Your task to perform on an android device: change alarm snooze length Image 0: 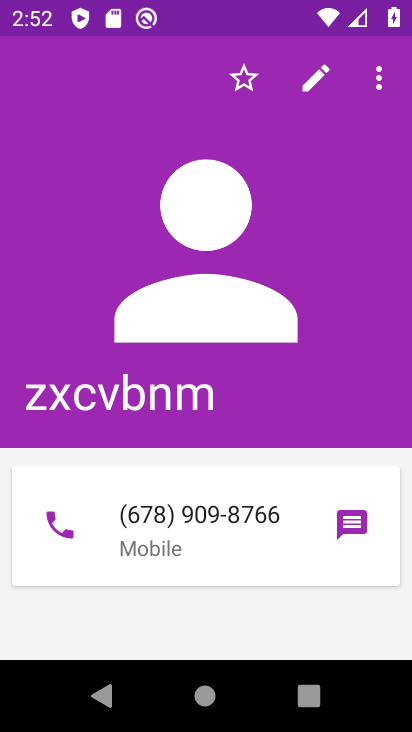
Step 0: press home button
Your task to perform on an android device: change alarm snooze length Image 1: 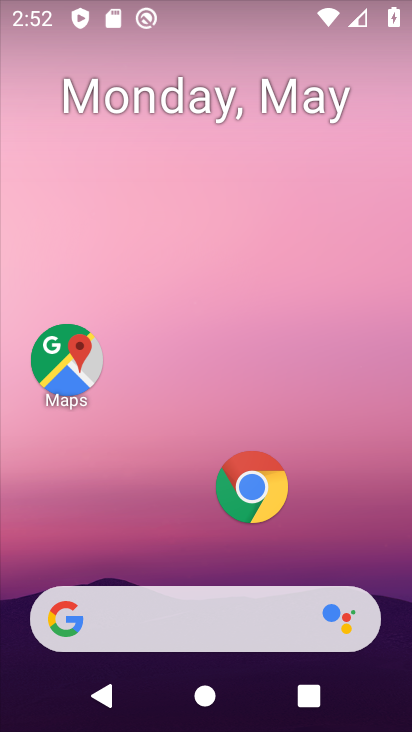
Step 1: drag from (165, 563) to (235, 9)
Your task to perform on an android device: change alarm snooze length Image 2: 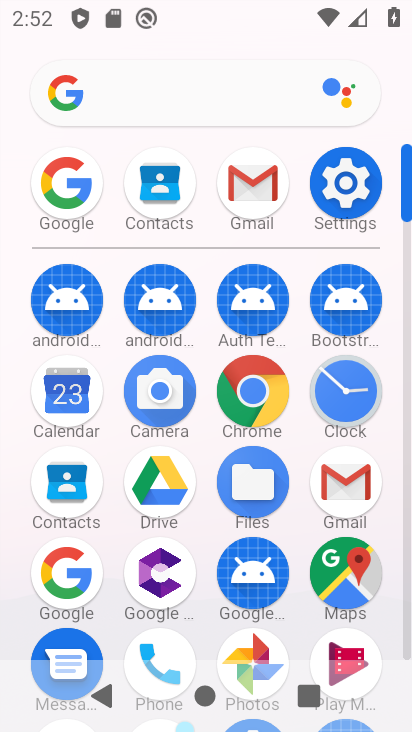
Step 2: click (341, 406)
Your task to perform on an android device: change alarm snooze length Image 3: 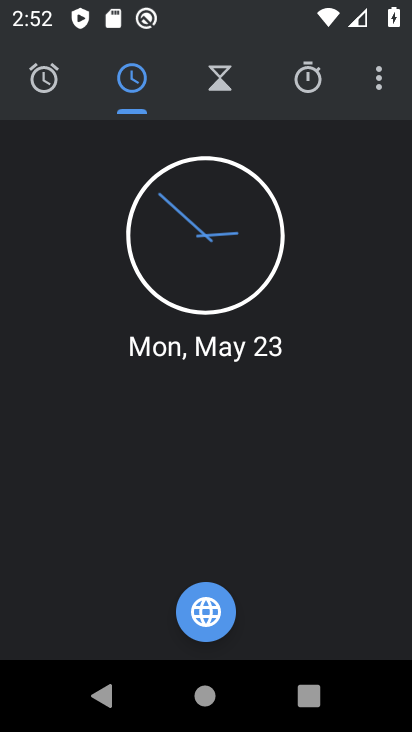
Step 3: click (374, 77)
Your task to perform on an android device: change alarm snooze length Image 4: 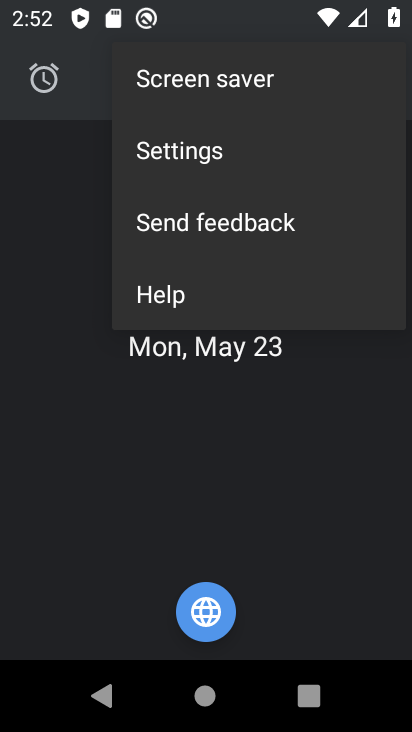
Step 4: click (263, 154)
Your task to perform on an android device: change alarm snooze length Image 5: 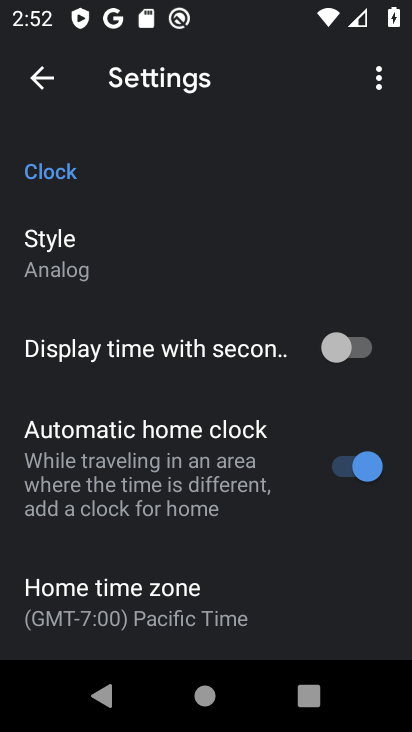
Step 5: drag from (180, 416) to (221, 286)
Your task to perform on an android device: change alarm snooze length Image 6: 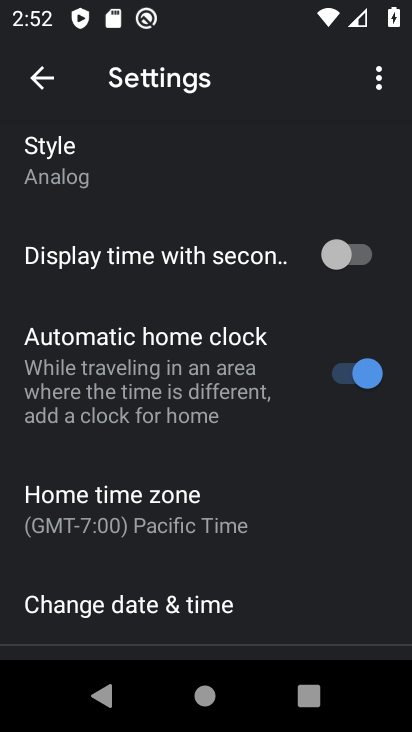
Step 6: drag from (284, 402) to (289, 210)
Your task to perform on an android device: change alarm snooze length Image 7: 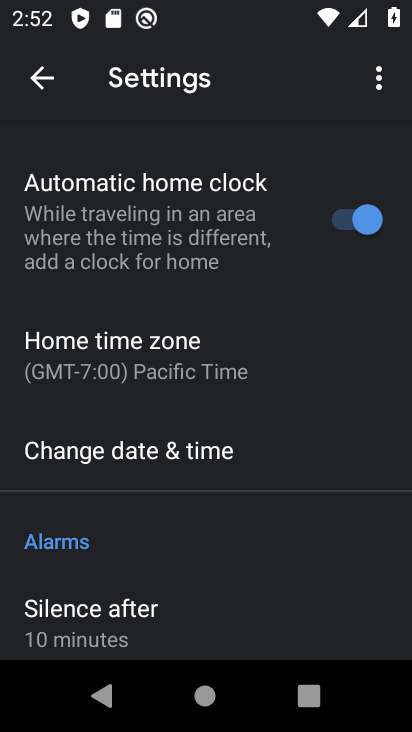
Step 7: drag from (198, 575) to (185, 289)
Your task to perform on an android device: change alarm snooze length Image 8: 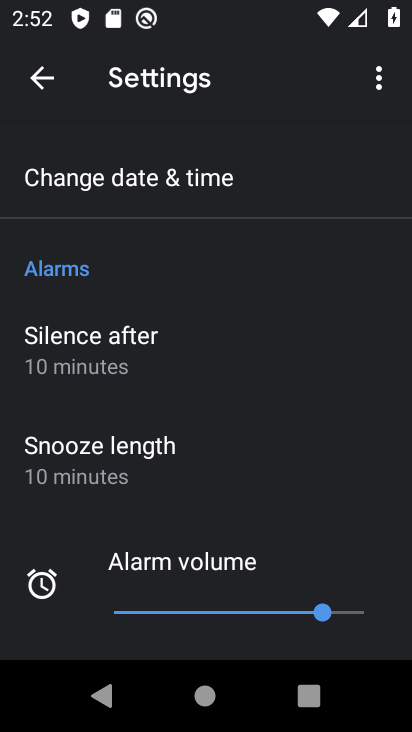
Step 8: click (166, 476)
Your task to perform on an android device: change alarm snooze length Image 9: 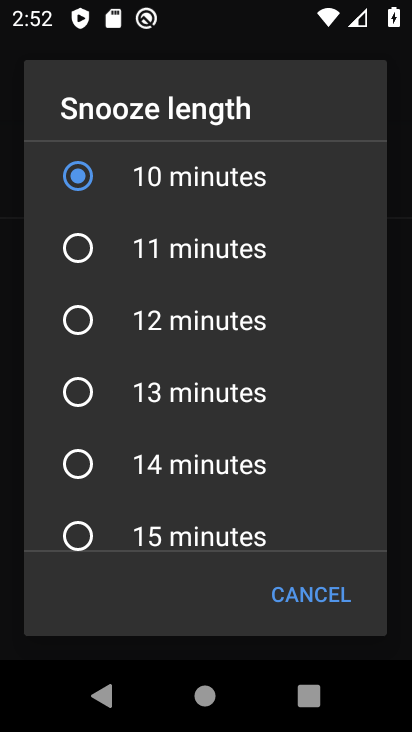
Step 9: click (153, 385)
Your task to perform on an android device: change alarm snooze length Image 10: 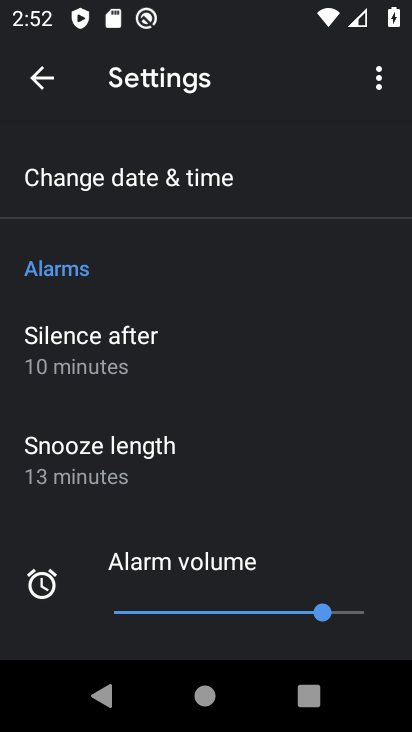
Step 10: task complete